Your task to perform on an android device: turn off priority inbox in the gmail app Image 0: 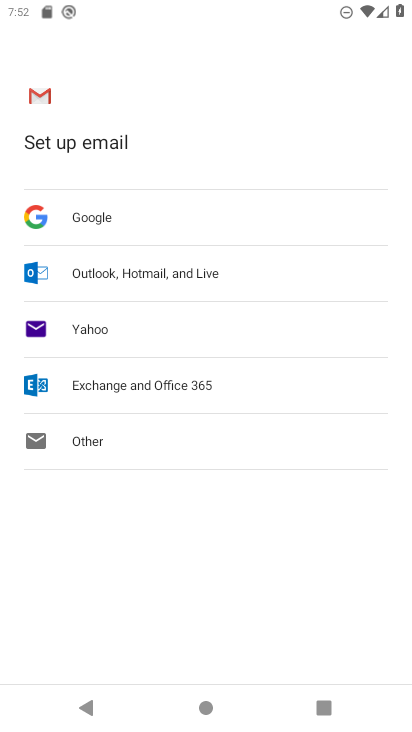
Step 0: press back button
Your task to perform on an android device: turn off priority inbox in the gmail app Image 1: 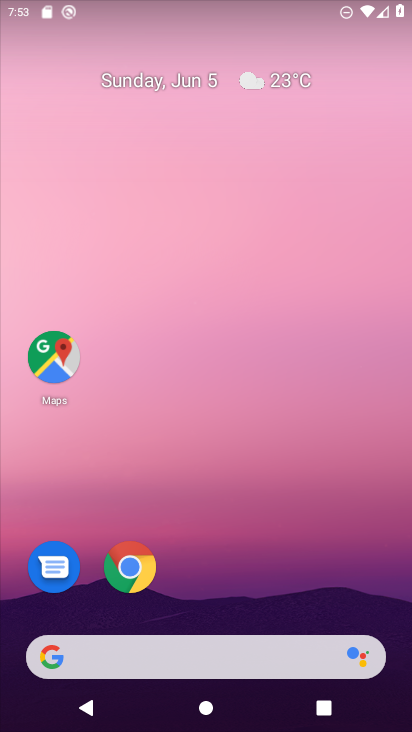
Step 1: drag from (343, 594) to (190, 42)
Your task to perform on an android device: turn off priority inbox in the gmail app Image 2: 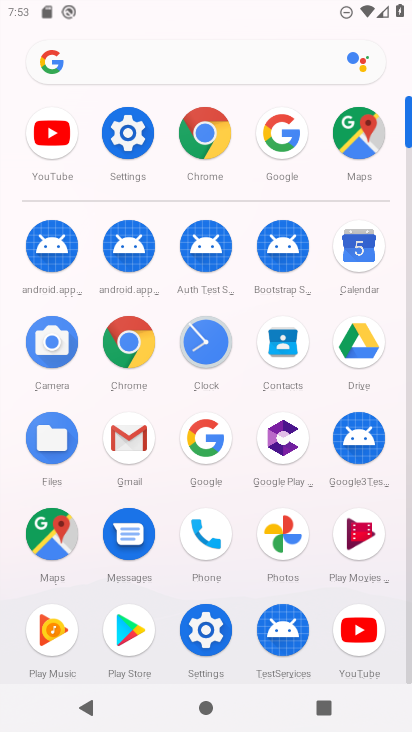
Step 2: click (140, 445)
Your task to perform on an android device: turn off priority inbox in the gmail app Image 3: 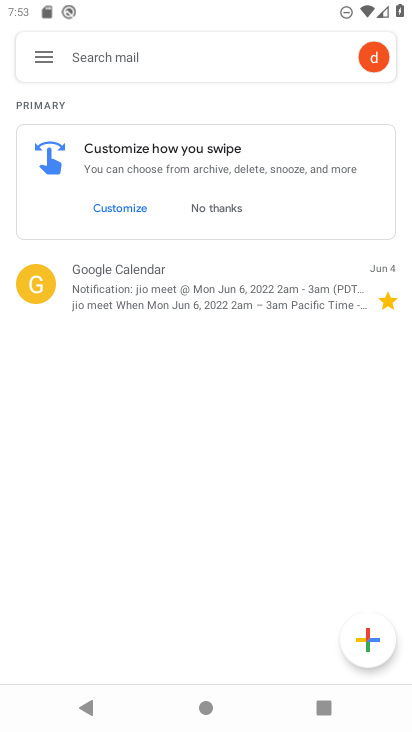
Step 3: click (38, 63)
Your task to perform on an android device: turn off priority inbox in the gmail app Image 4: 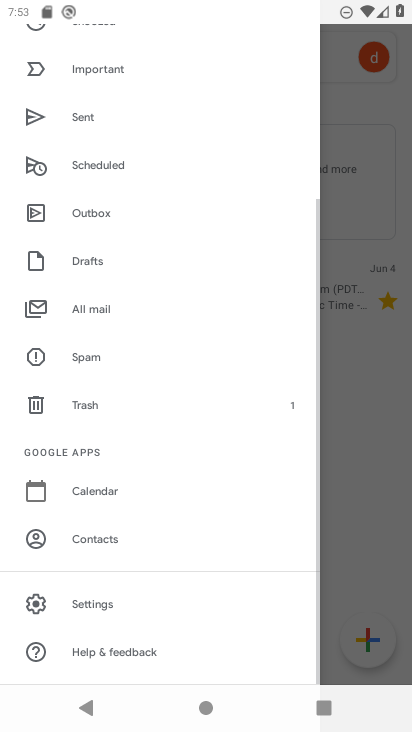
Step 4: click (103, 603)
Your task to perform on an android device: turn off priority inbox in the gmail app Image 5: 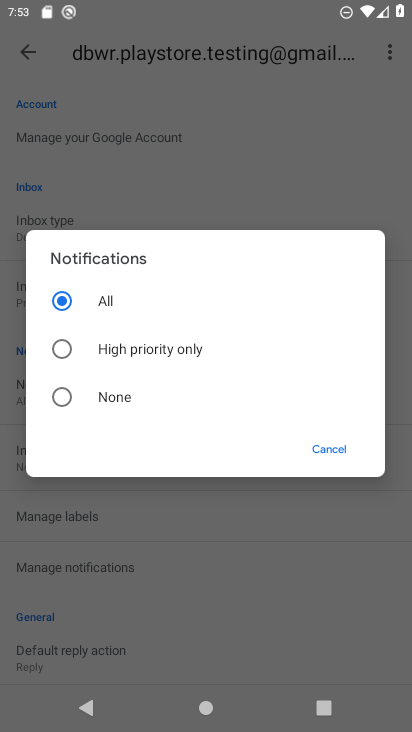
Step 5: click (314, 449)
Your task to perform on an android device: turn off priority inbox in the gmail app Image 6: 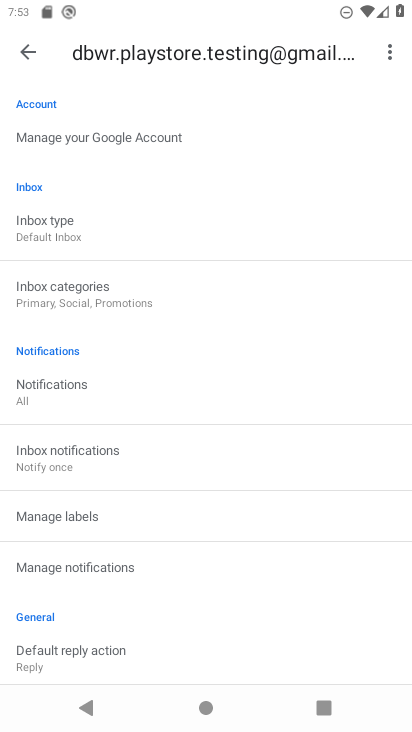
Step 6: click (73, 241)
Your task to perform on an android device: turn off priority inbox in the gmail app Image 7: 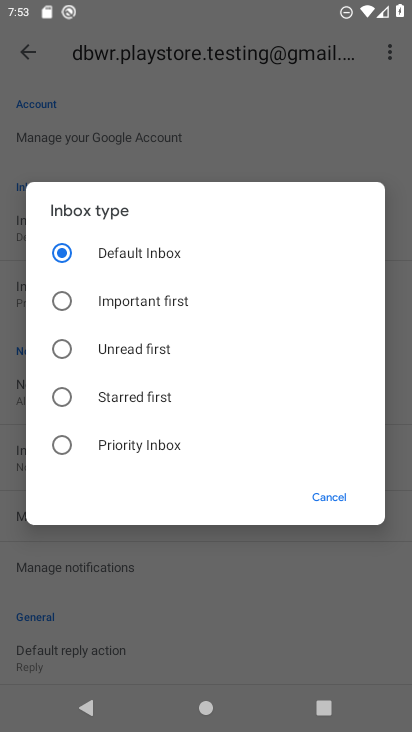
Step 7: task complete